Your task to perform on an android device: Open wifi settings Image 0: 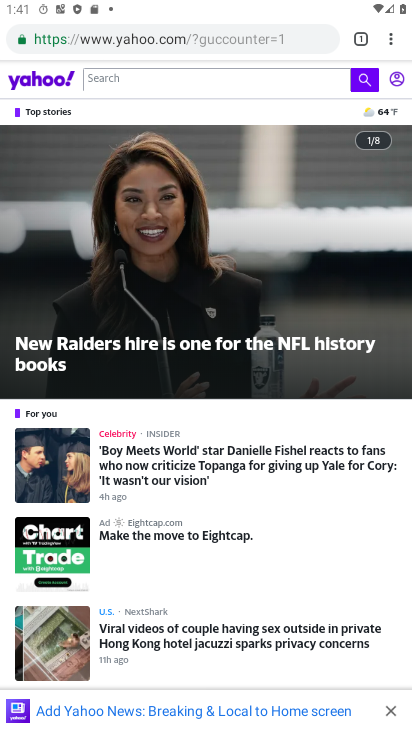
Step 0: press home button
Your task to perform on an android device: Open wifi settings Image 1: 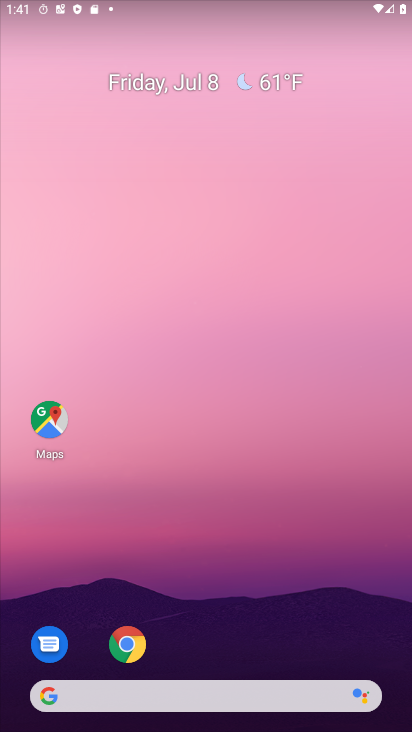
Step 1: drag from (205, 614) to (207, 14)
Your task to perform on an android device: Open wifi settings Image 2: 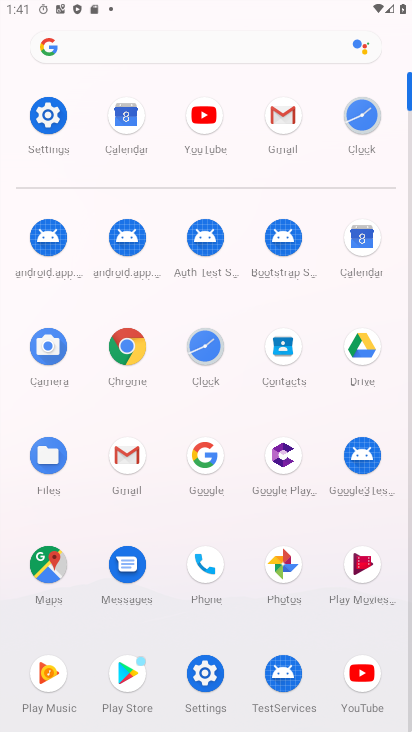
Step 2: click (43, 127)
Your task to perform on an android device: Open wifi settings Image 3: 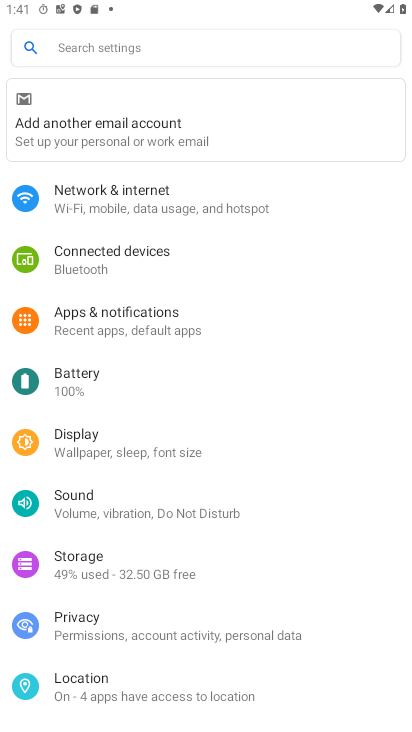
Step 3: click (125, 202)
Your task to perform on an android device: Open wifi settings Image 4: 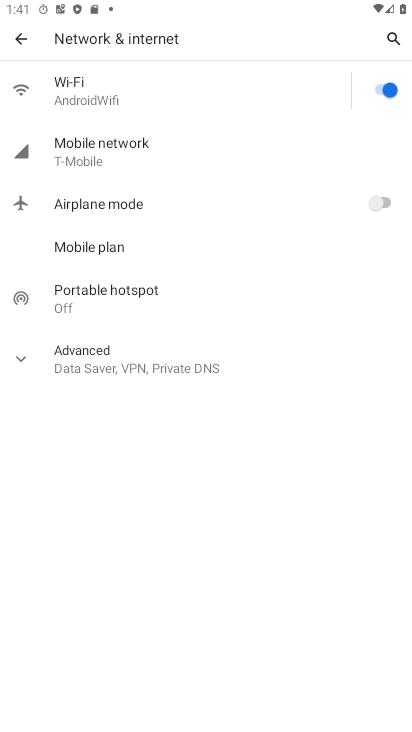
Step 4: click (185, 67)
Your task to perform on an android device: Open wifi settings Image 5: 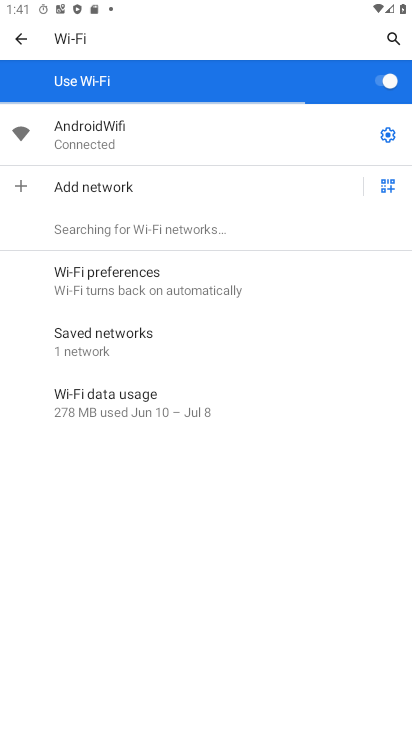
Step 5: task complete